Your task to perform on an android device: See recent photos Image 0: 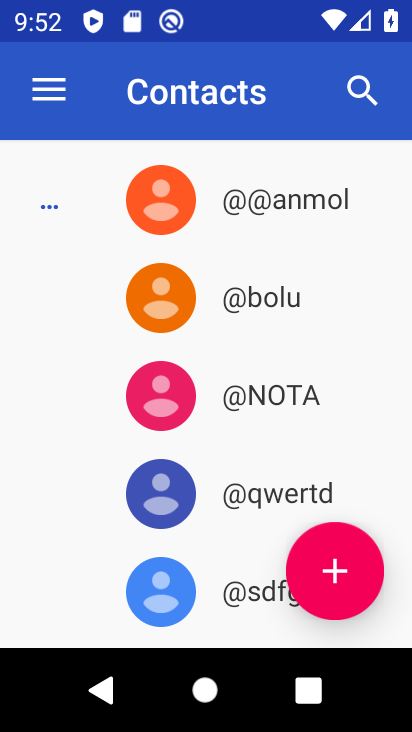
Step 0: press home button
Your task to perform on an android device: See recent photos Image 1: 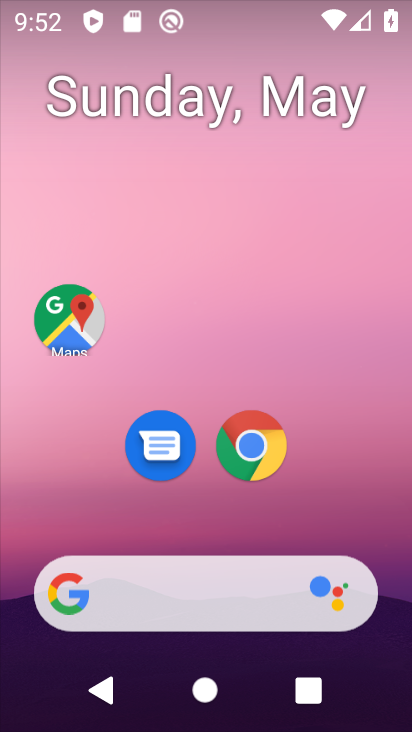
Step 1: drag from (93, 532) to (181, 151)
Your task to perform on an android device: See recent photos Image 2: 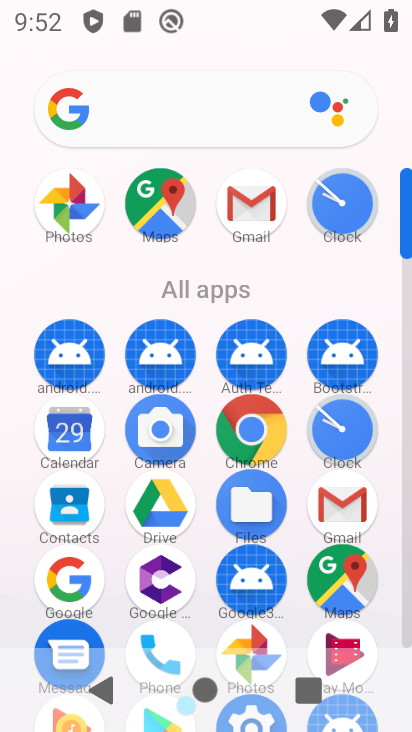
Step 2: click (262, 635)
Your task to perform on an android device: See recent photos Image 3: 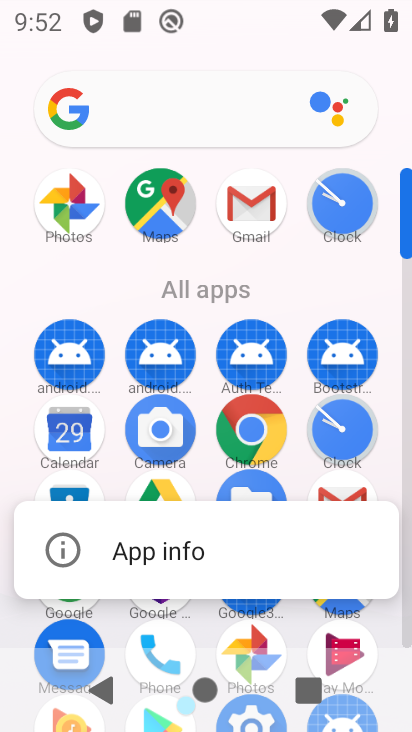
Step 3: click (267, 639)
Your task to perform on an android device: See recent photos Image 4: 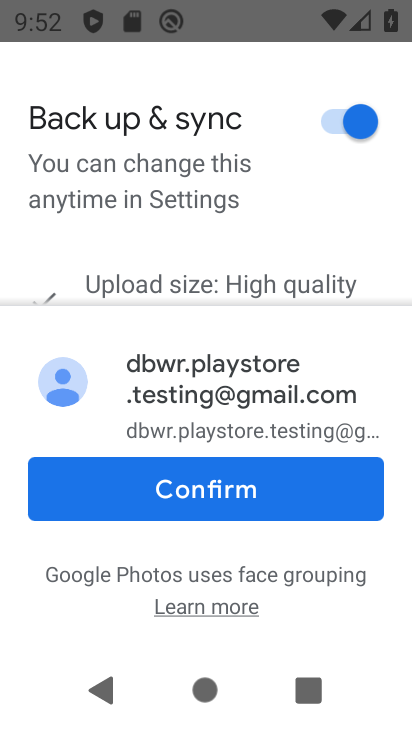
Step 4: click (233, 498)
Your task to perform on an android device: See recent photos Image 5: 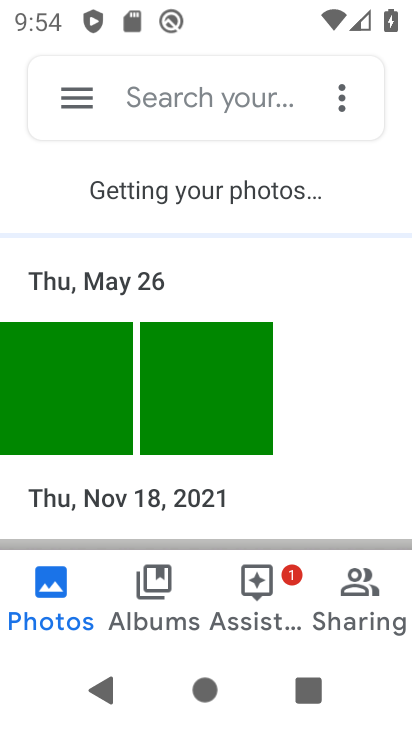
Step 5: task complete